Your task to perform on an android device: Go to Reddit.com Image 0: 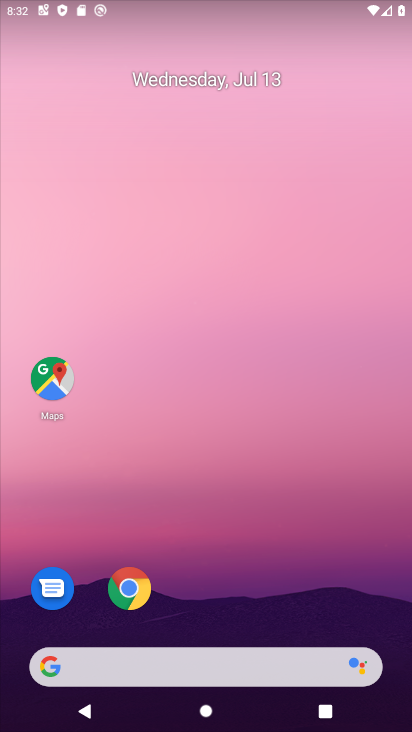
Step 0: click (142, 575)
Your task to perform on an android device: Go to Reddit.com Image 1: 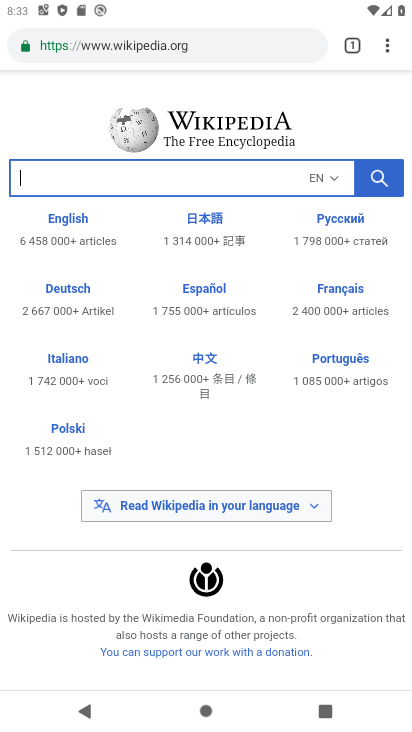
Step 1: click (229, 43)
Your task to perform on an android device: Go to Reddit.com Image 2: 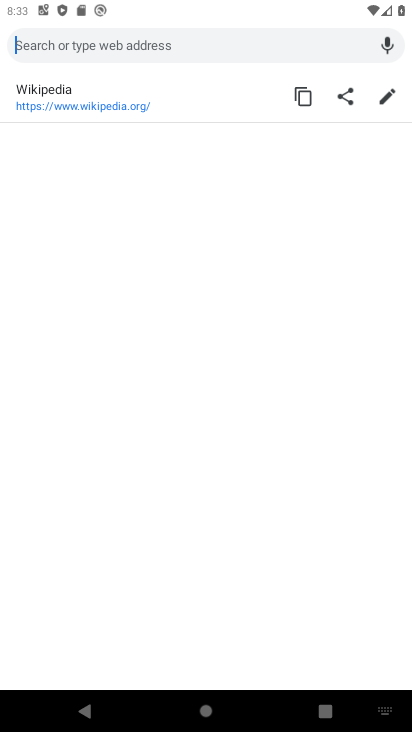
Step 2: type "Reddit.com"
Your task to perform on an android device: Go to Reddit.com Image 3: 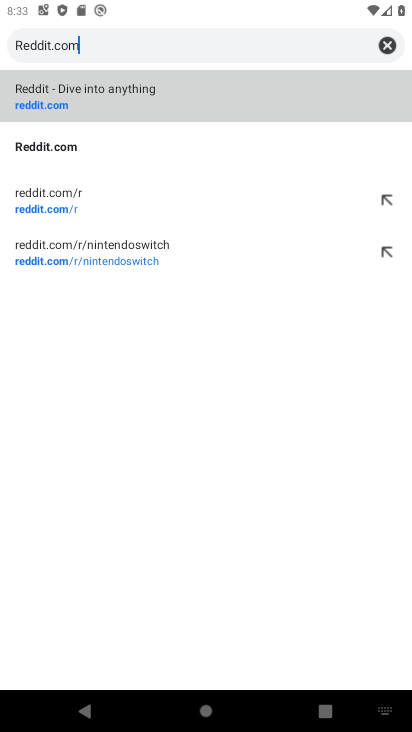
Step 3: click (36, 143)
Your task to perform on an android device: Go to Reddit.com Image 4: 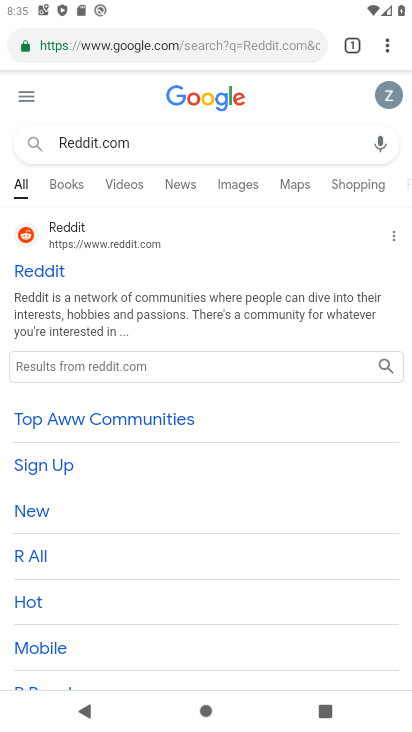
Step 4: task complete